Your task to perform on an android device: open a new tab in the chrome app Image 0: 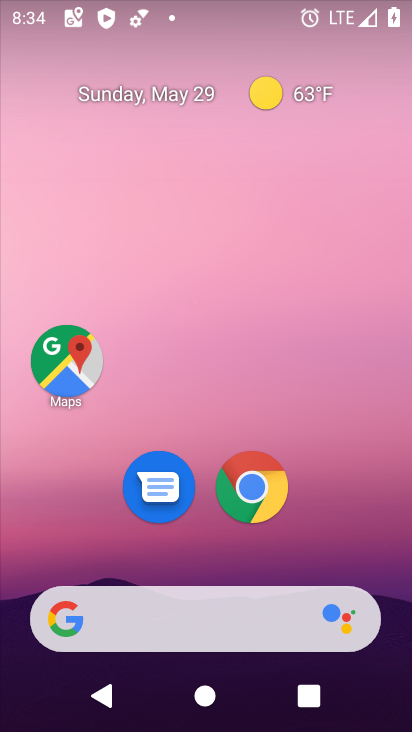
Step 0: click (265, 504)
Your task to perform on an android device: open a new tab in the chrome app Image 1: 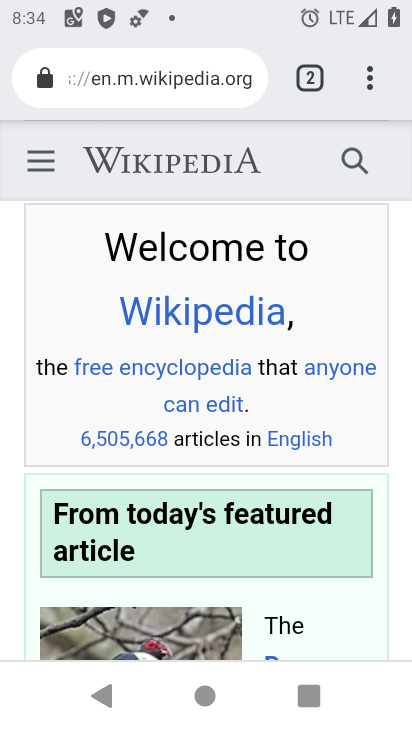
Step 1: drag from (320, 77) to (311, 308)
Your task to perform on an android device: open a new tab in the chrome app Image 2: 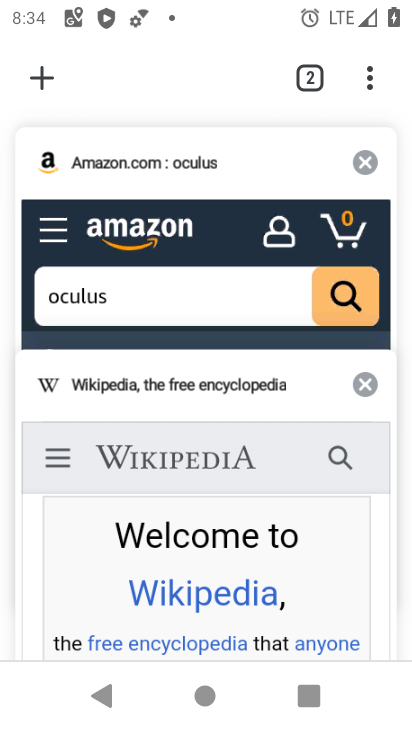
Step 2: click (45, 82)
Your task to perform on an android device: open a new tab in the chrome app Image 3: 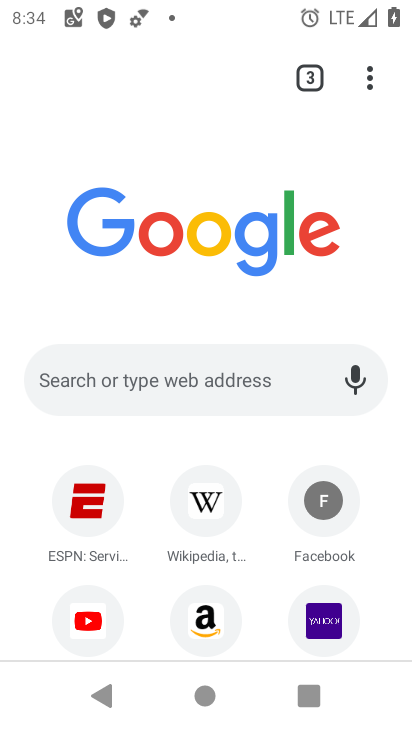
Step 3: task complete